Your task to perform on an android device: check android version Image 0: 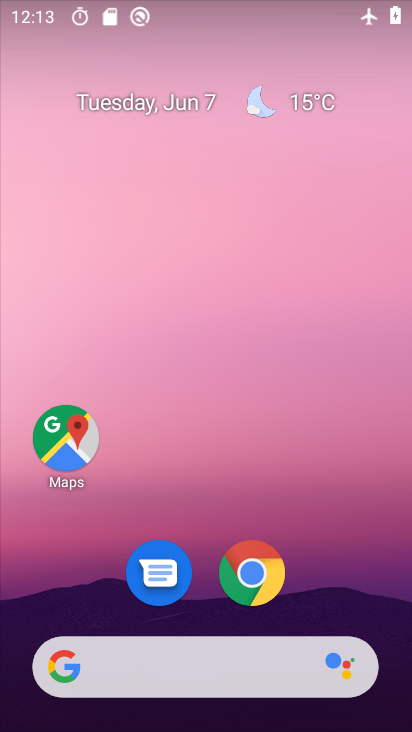
Step 0: drag from (213, 619) to (212, 198)
Your task to perform on an android device: check android version Image 1: 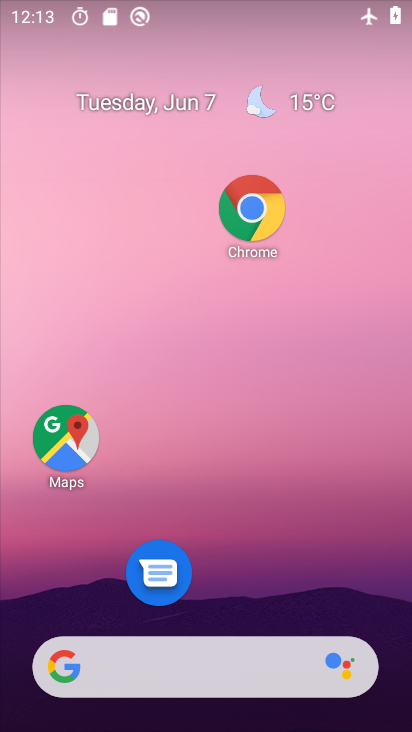
Step 1: drag from (221, 594) to (222, 190)
Your task to perform on an android device: check android version Image 2: 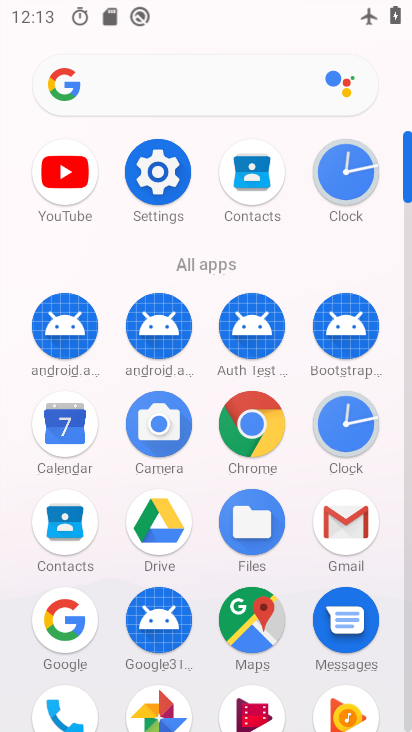
Step 2: click (132, 186)
Your task to perform on an android device: check android version Image 3: 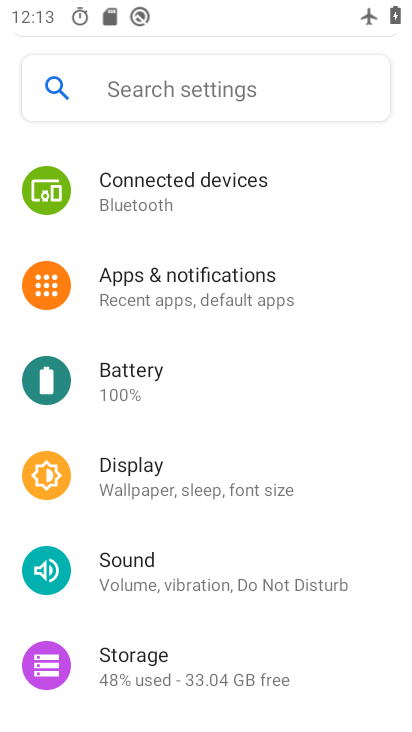
Step 3: drag from (280, 502) to (236, 189)
Your task to perform on an android device: check android version Image 4: 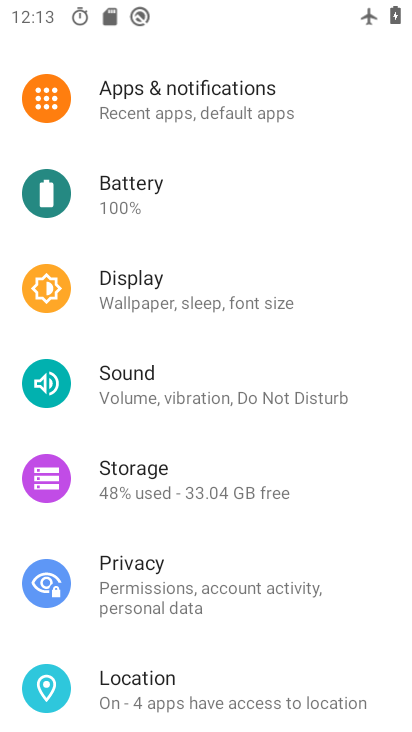
Step 4: drag from (292, 492) to (256, 210)
Your task to perform on an android device: check android version Image 5: 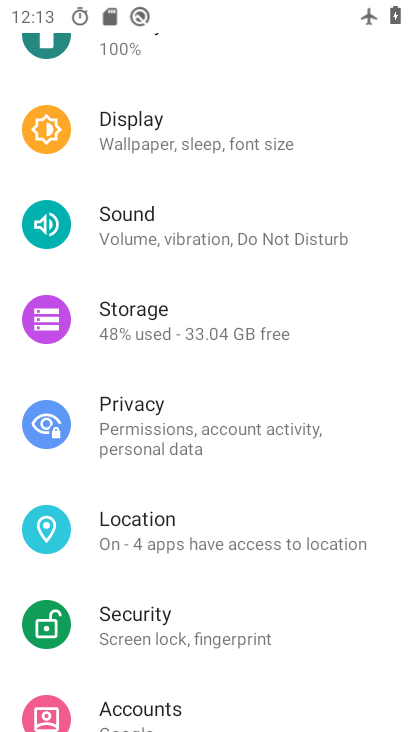
Step 5: drag from (247, 533) to (254, 173)
Your task to perform on an android device: check android version Image 6: 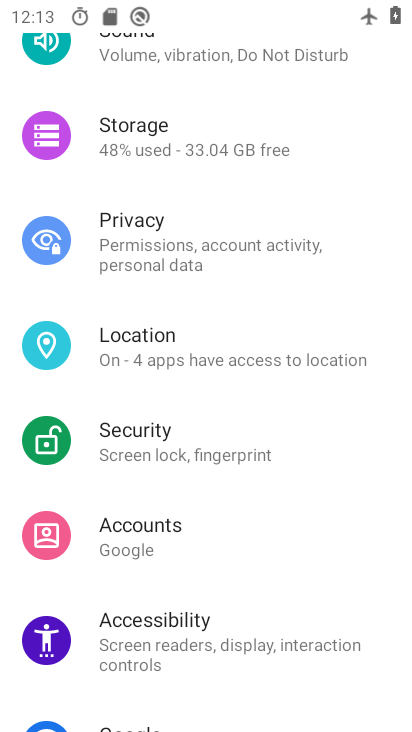
Step 6: drag from (283, 522) to (278, 215)
Your task to perform on an android device: check android version Image 7: 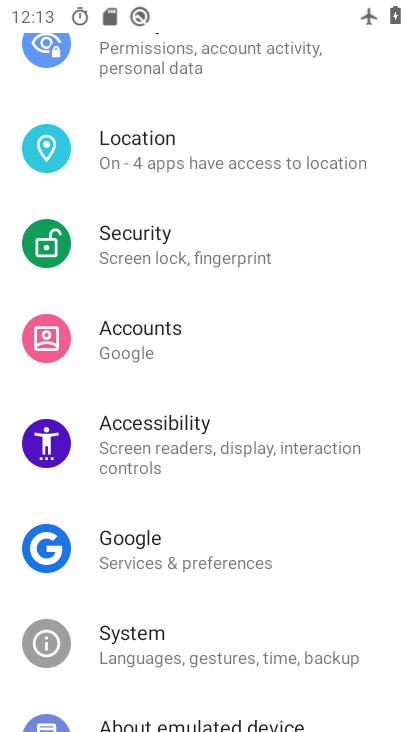
Step 7: drag from (307, 464) to (295, 136)
Your task to perform on an android device: check android version Image 8: 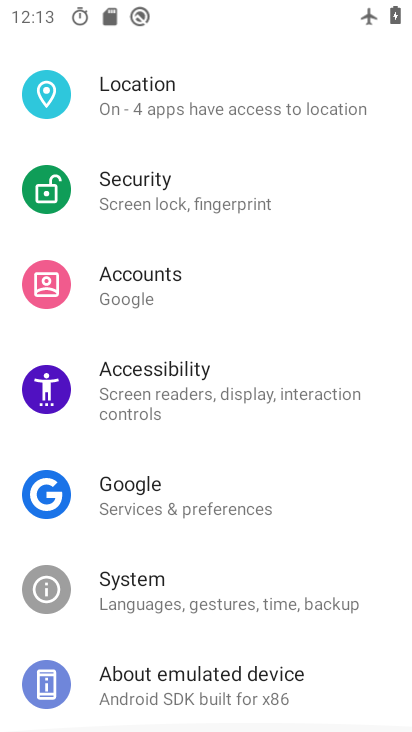
Step 8: drag from (267, 465) to (283, 218)
Your task to perform on an android device: check android version Image 9: 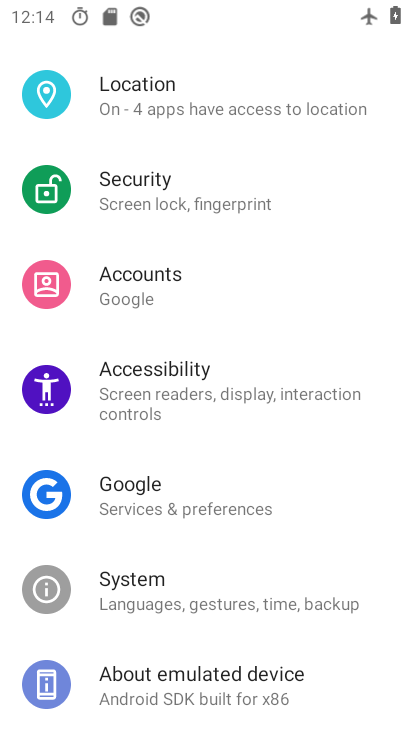
Step 9: click (207, 660)
Your task to perform on an android device: check android version Image 10: 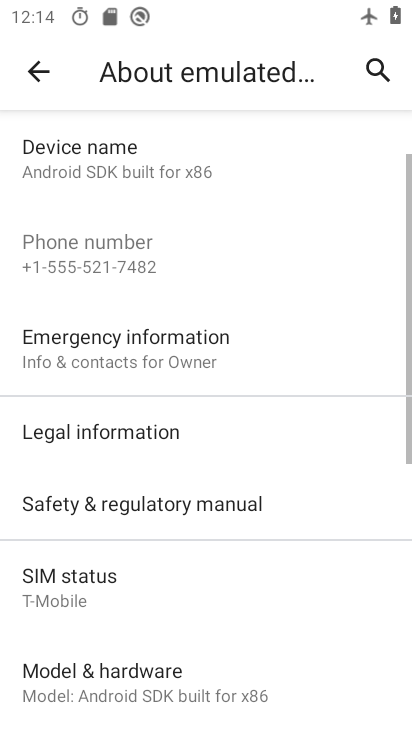
Step 10: drag from (240, 578) to (243, 257)
Your task to perform on an android device: check android version Image 11: 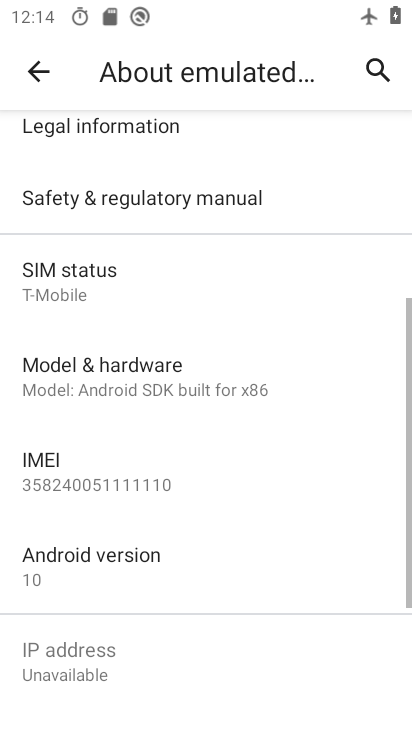
Step 11: click (99, 535)
Your task to perform on an android device: check android version Image 12: 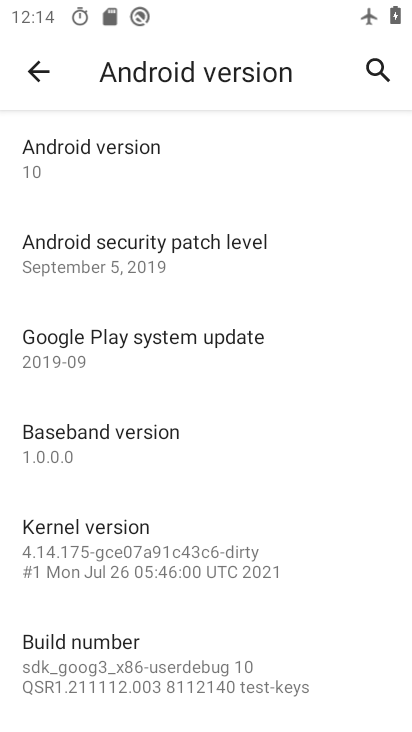
Step 12: drag from (222, 614) to (201, 474)
Your task to perform on an android device: check android version Image 13: 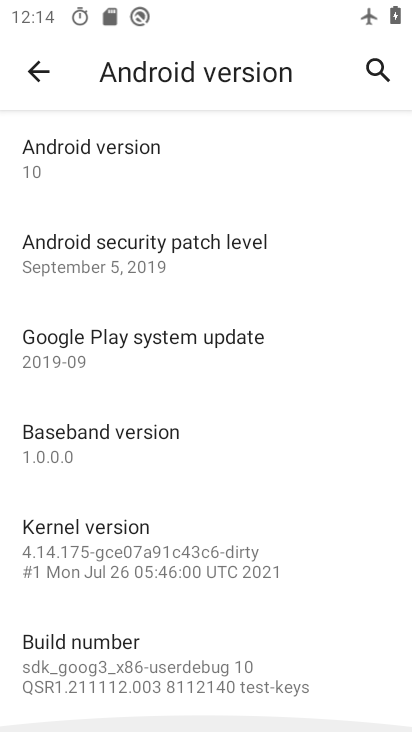
Step 13: drag from (216, 593) to (207, 343)
Your task to perform on an android device: check android version Image 14: 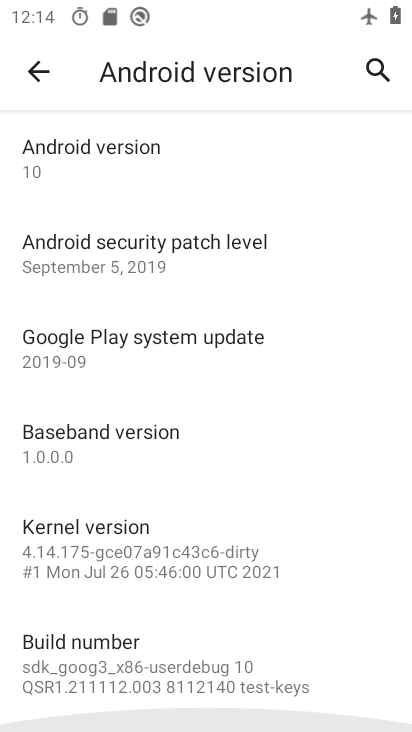
Step 14: drag from (233, 303) to (259, 519)
Your task to perform on an android device: check android version Image 15: 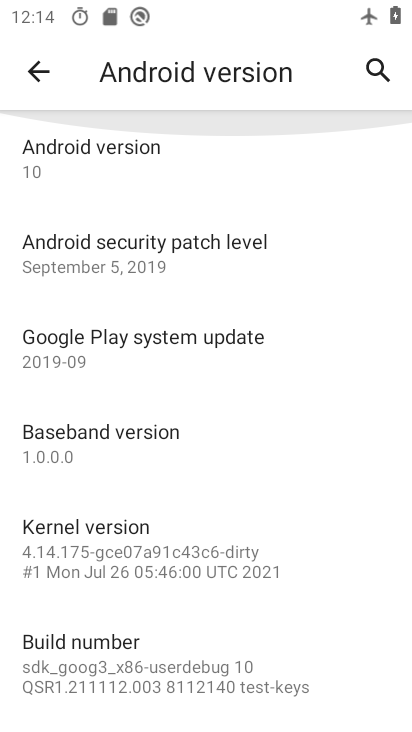
Step 15: drag from (235, 429) to (255, 543)
Your task to perform on an android device: check android version Image 16: 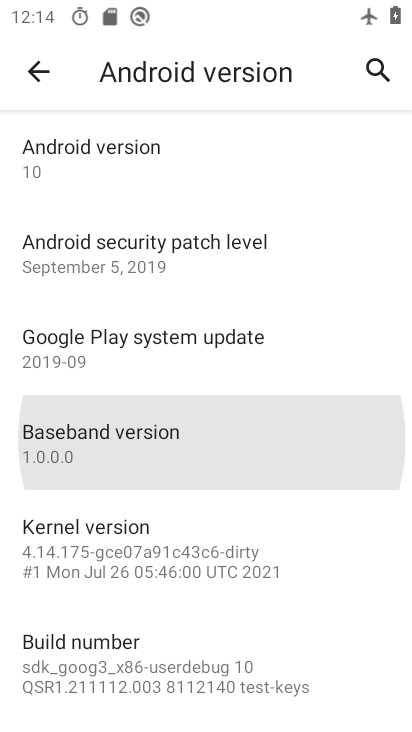
Step 16: click (205, 162)
Your task to perform on an android device: check android version Image 17: 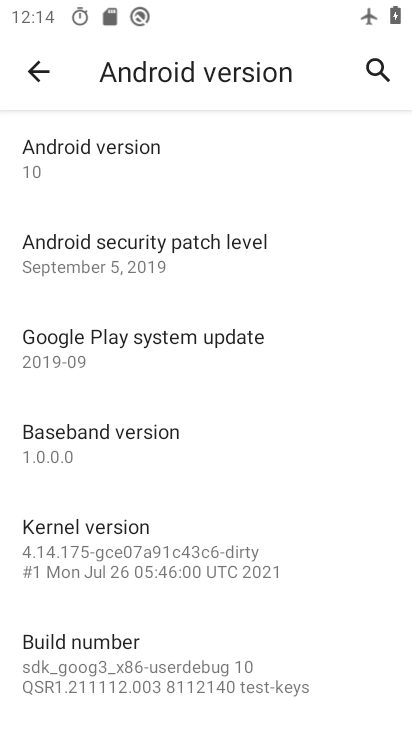
Step 17: task complete